Your task to perform on an android device: Open sound settings Image 0: 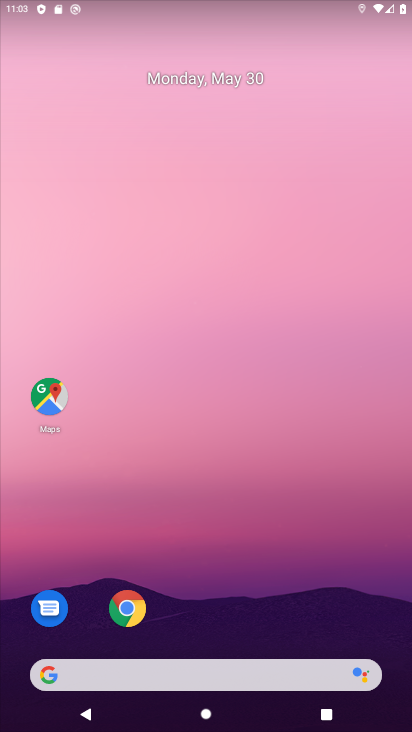
Step 0: drag from (260, 614) to (298, 6)
Your task to perform on an android device: Open sound settings Image 1: 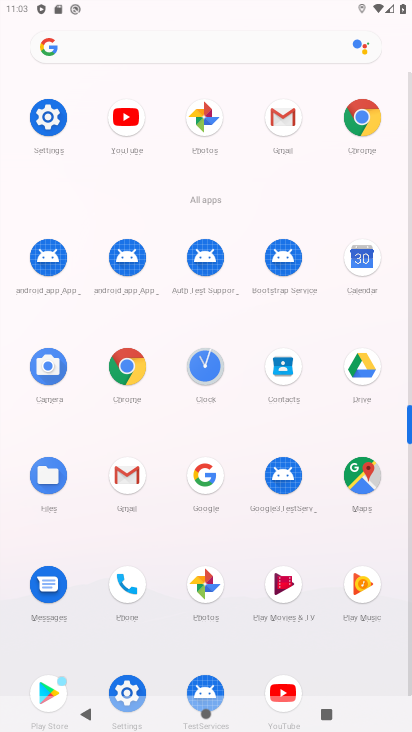
Step 1: click (44, 121)
Your task to perform on an android device: Open sound settings Image 2: 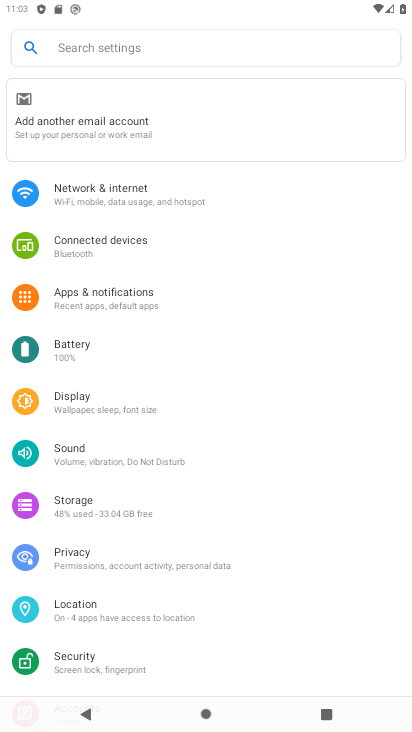
Step 2: click (72, 454)
Your task to perform on an android device: Open sound settings Image 3: 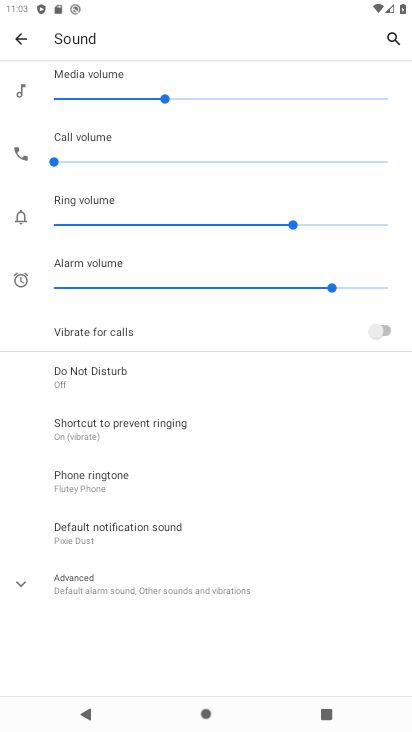
Step 3: task complete